Your task to perform on an android device: Go to Android settings Image 0: 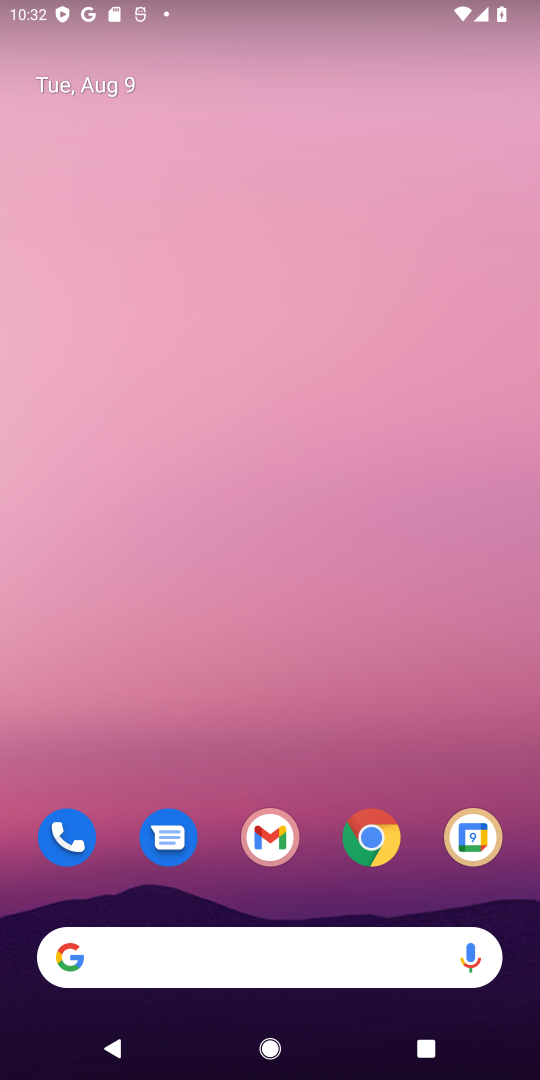
Step 0: drag from (289, 922) to (289, 322)
Your task to perform on an android device: Go to Android settings Image 1: 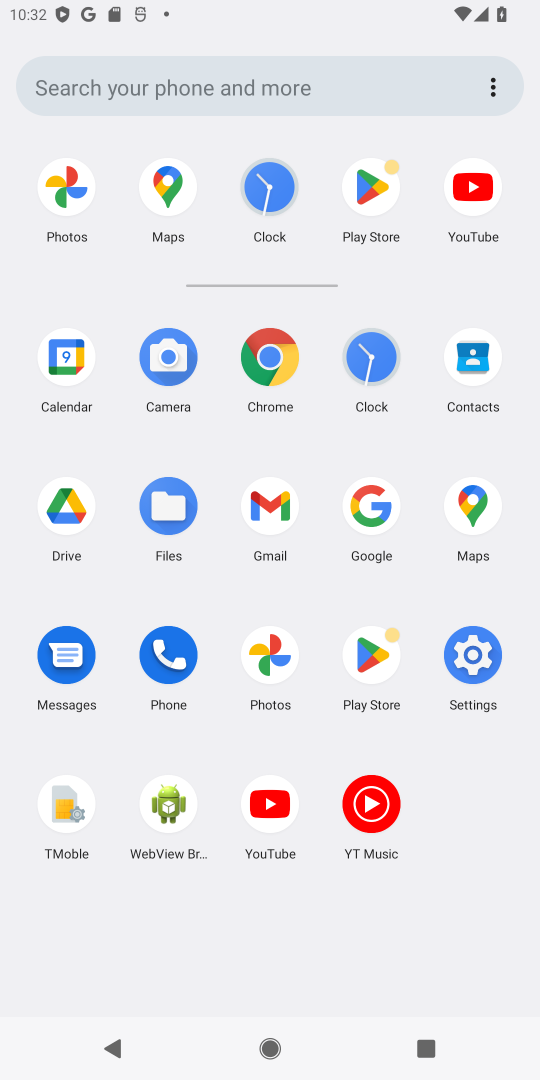
Step 1: click (461, 655)
Your task to perform on an android device: Go to Android settings Image 2: 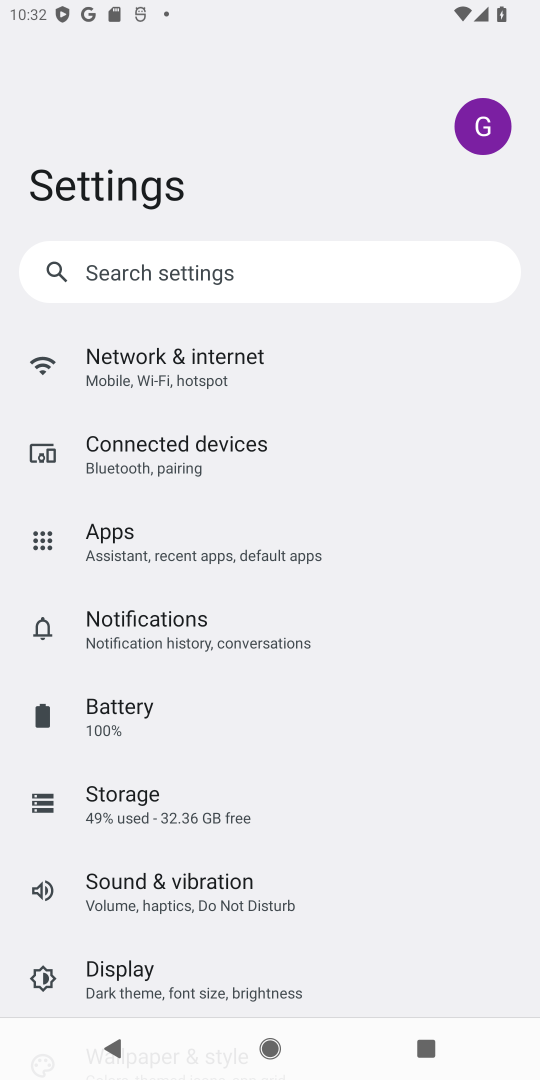
Step 2: task complete